Your task to perform on an android device: turn off improve location accuracy Image 0: 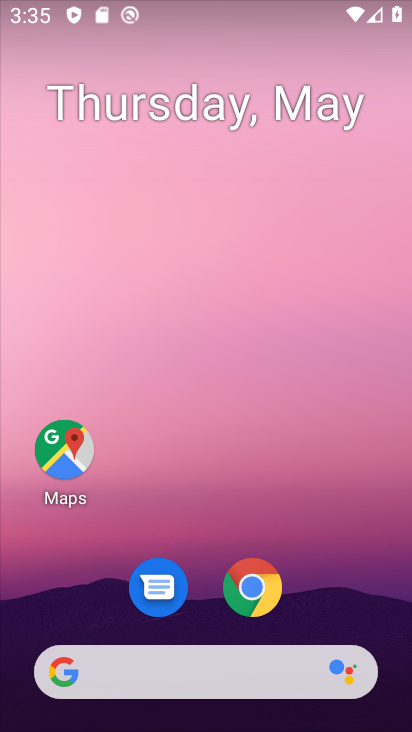
Step 0: drag from (288, 532) to (281, 0)
Your task to perform on an android device: turn off improve location accuracy Image 1: 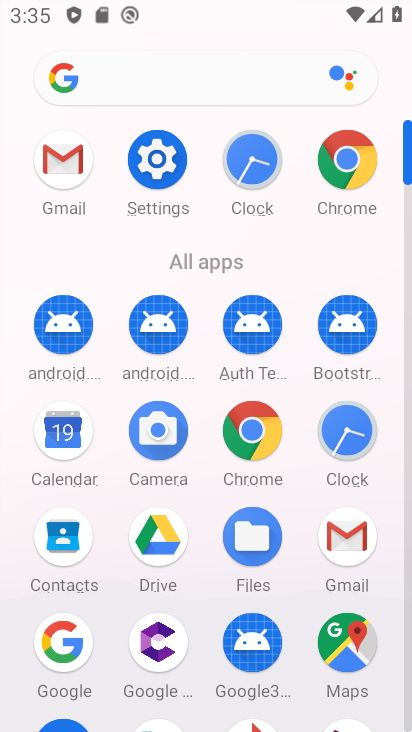
Step 1: drag from (20, 543) to (27, 262)
Your task to perform on an android device: turn off improve location accuracy Image 2: 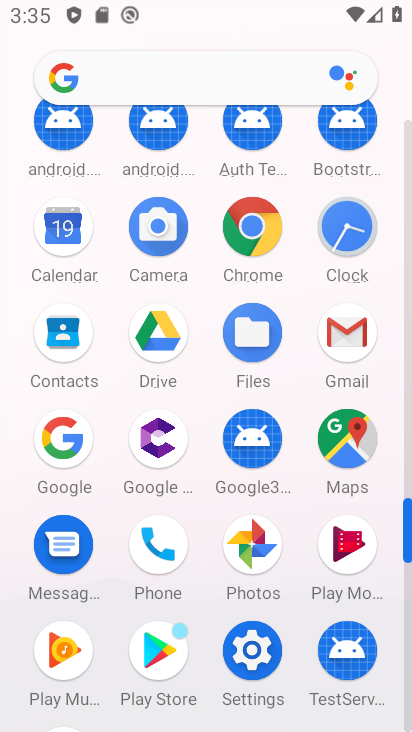
Step 2: click (248, 649)
Your task to perform on an android device: turn off improve location accuracy Image 3: 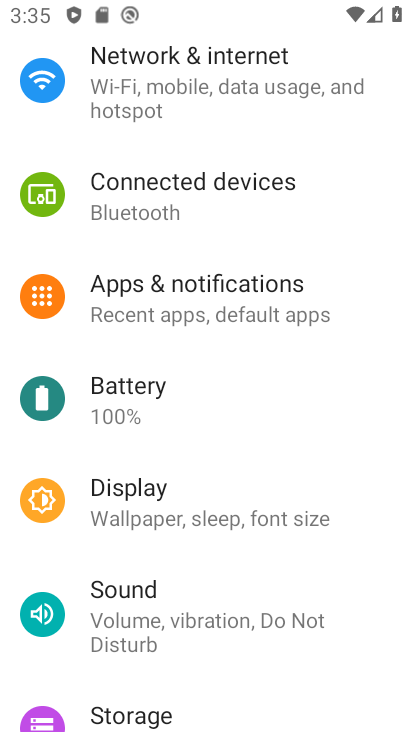
Step 3: drag from (243, 448) to (268, 142)
Your task to perform on an android device: turn off improve location accuracy Image 4: 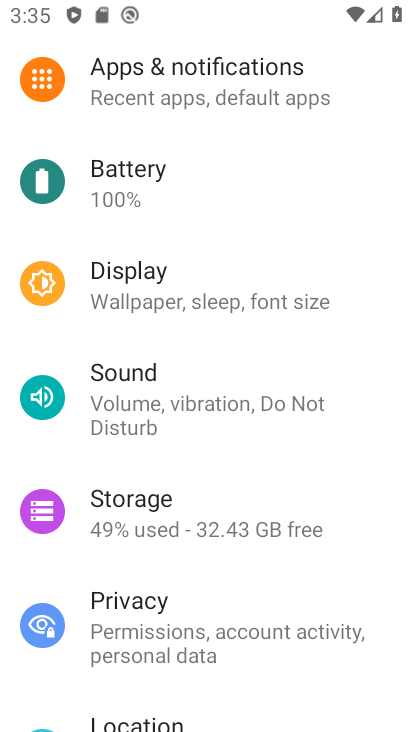
Step 4: drag from (237, 605) to (246, 176)
Your task to perform on an android device: turn off improve location accuracy Image 5: 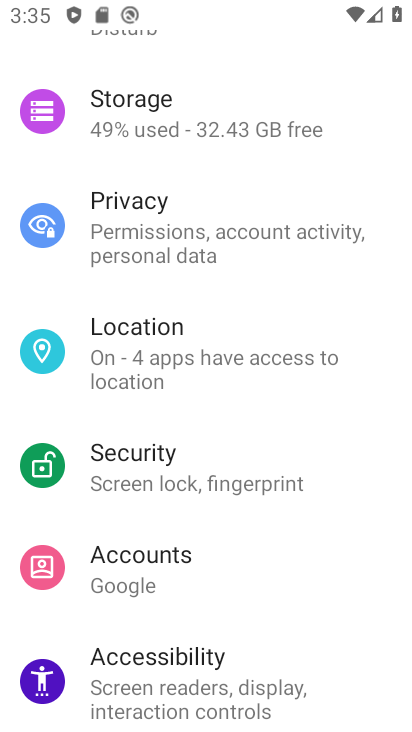
Step 5: click (206, 331)
Your task to perform on an android device: turn off improve location accuracy Image 6: 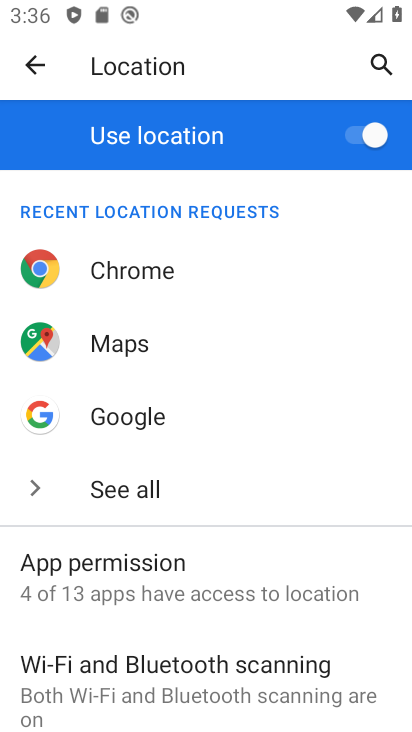
Step 6: drag from (217, 577) to (275, 167)
Your task to perform on an android device: turn off improve location accuracy Image 7: 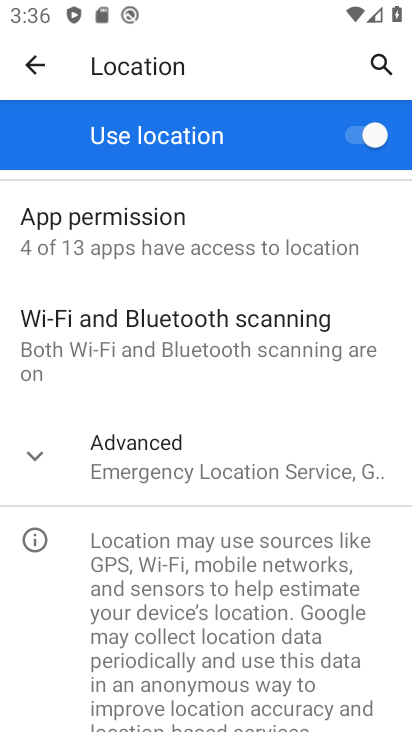
Step 7: click (184, 459)
Your task to perform on an android device: turn off improve location accuracy Image 8: 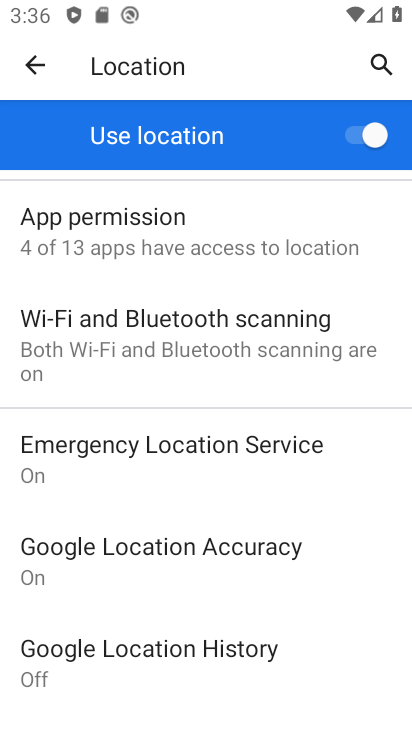
Step 8: click (187, 544)
Your task to perform on an android device: turn off improve location accuracy Image 9: 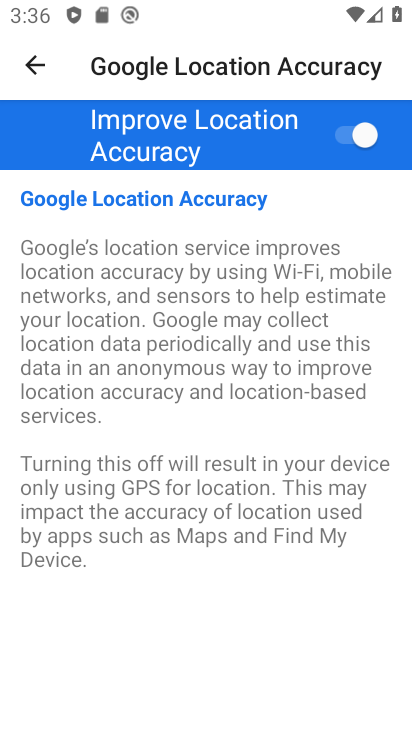
Step 9: click (359, 143)
Your task to perform on an android device: turn off improve location accuracy Image 10: 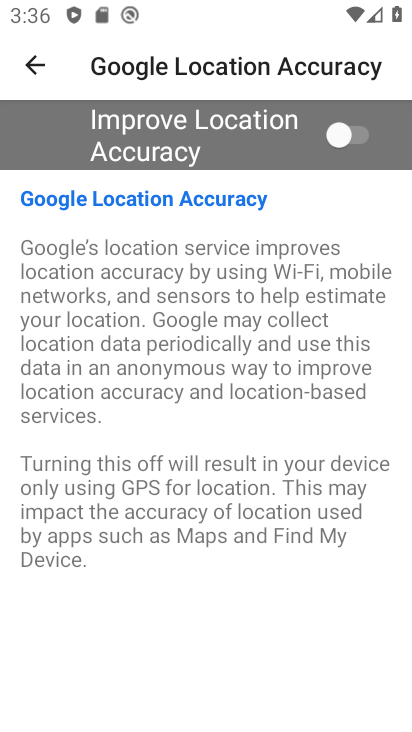
Step 10: task complete